Your task to perform on an android device: What is the news today? Image 0: 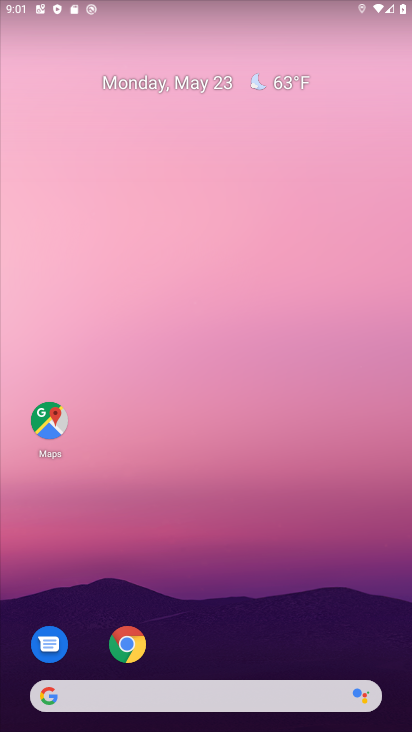
Step 0: press home button
Your task to perform on an android device: What is the news today? Image 1: 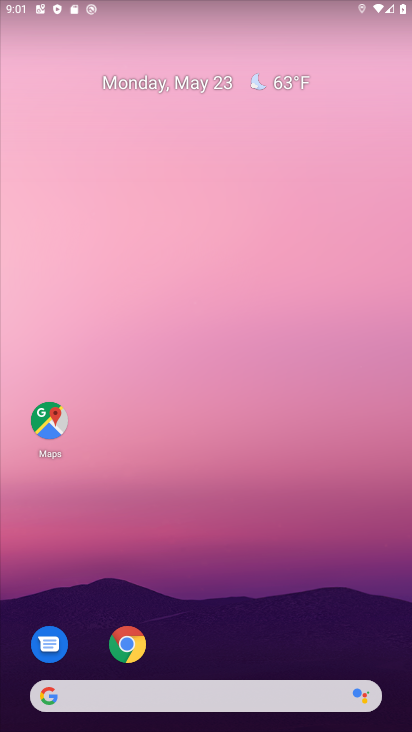
Step 1: task complete